Your task to perform on an android device: change alarm snooze length Image 0: 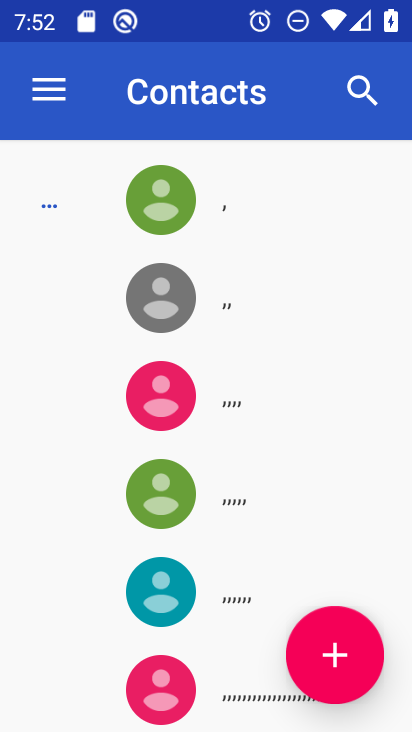
Step 0: press home button
Your task to perform on an android device: change alarm snooze length Image 1: 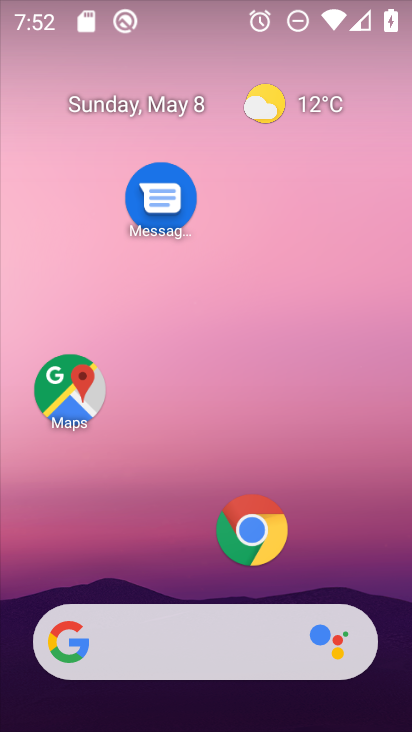
Step 1: drag from (203, 585) to (230, 2)
Your task to perform on an android device: change alarm snooze length Image 2: 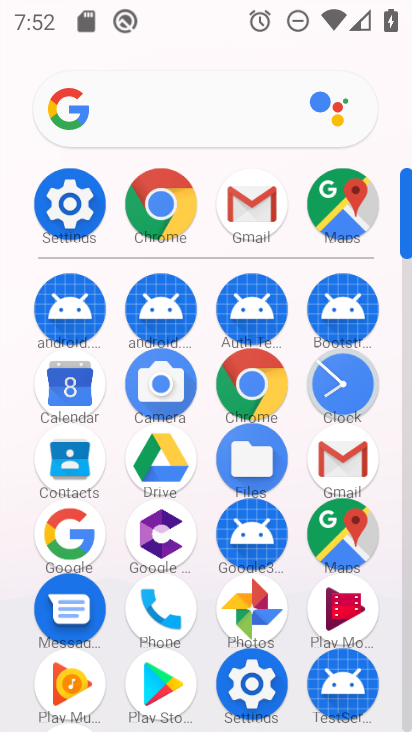
Step 2: click (339, 377)
Your task to perform on an android device: change alarm snooze length Image 3: 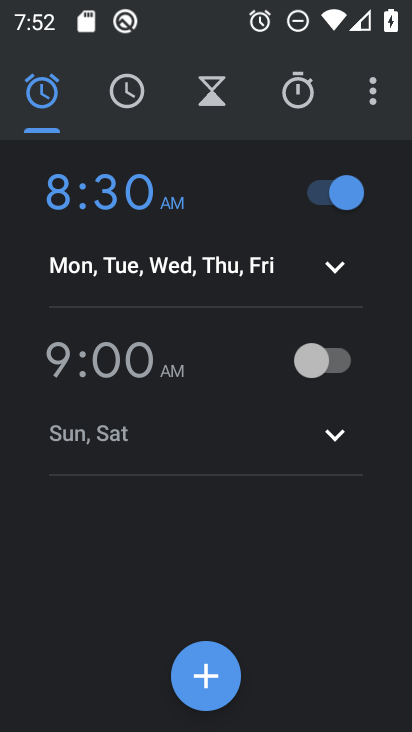
Step 3: click (369, 83)
Your task to perform on an android device: change alarm snooze length Image 4: 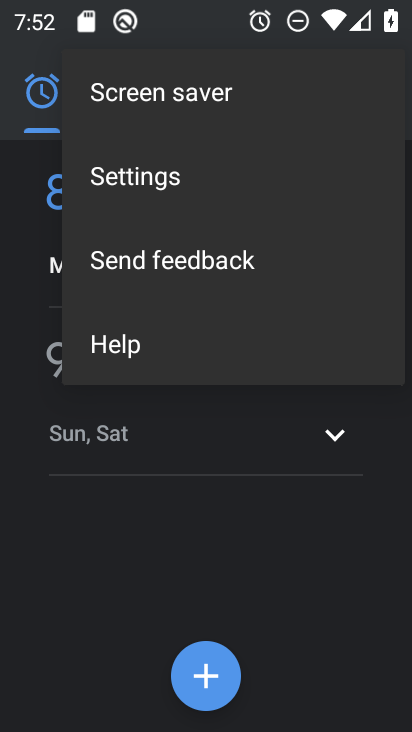
Step 4: click (204, 176)
Your task to perform on an android device: change alarm snooze length Image 5: 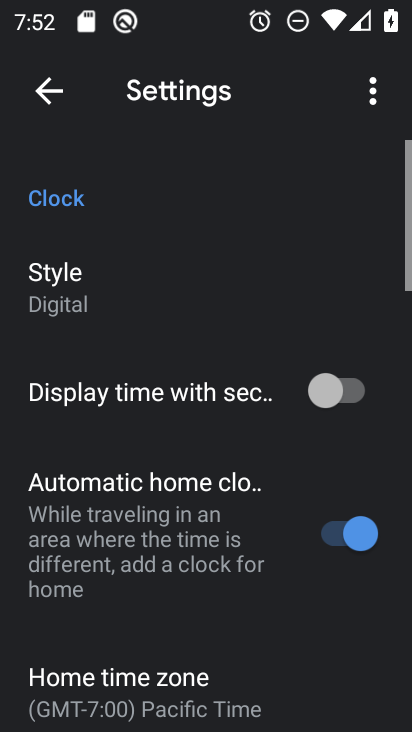
Step 5: drag from (210, 661) to (251, 0)
Your task to perform on an android device: change alarm snooze length Image 6: 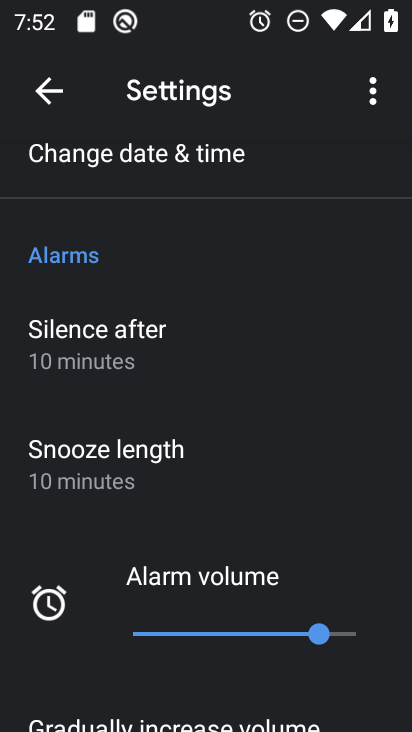
Step 6: click (177, 456)
Your task to perform on an android device: change alarm snooze length Image 7: 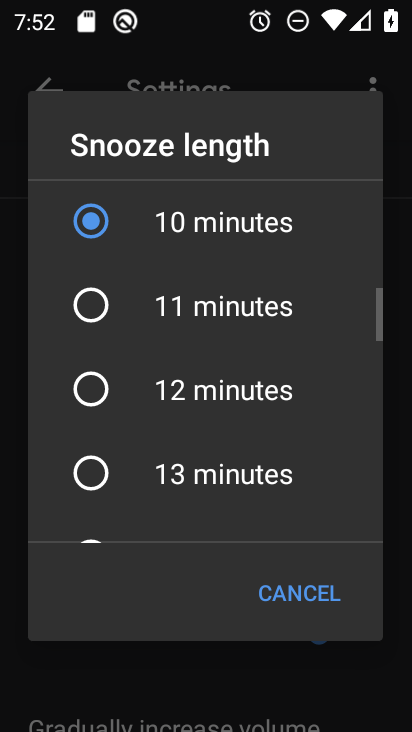
Step 7: click (95, 307)
Your task to perform on an android device: change alarm snooze length Image 8: 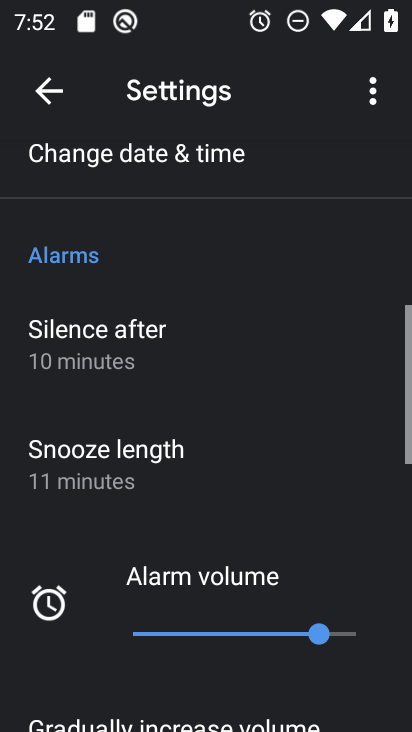
Step 8: task complete